Your task to perform on an android device: Open Youtube and go to "Your channel" Image 0: 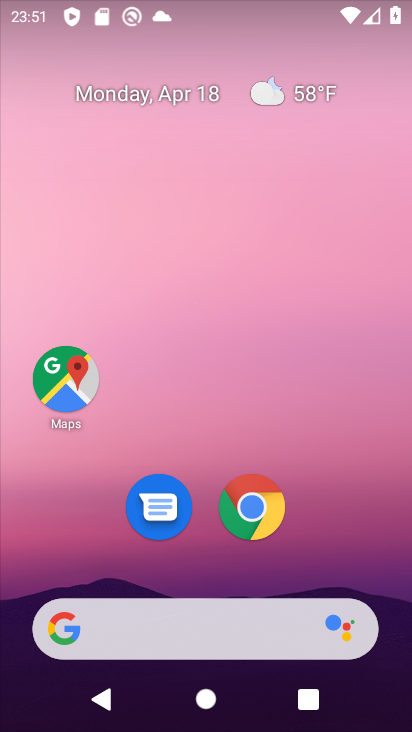
Step 0: drag from (206, 566) to (199, 101)
Your task to perform on an android device: Open Youtube and go to "Your channel" Image 1: 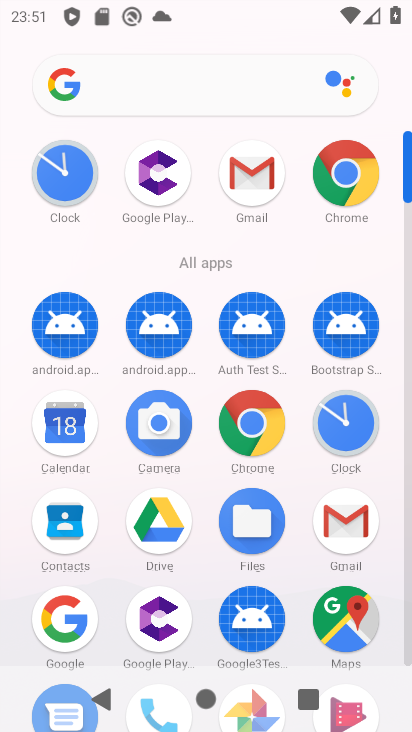
Step 1: drag from (206, 581) to (194, 150)
Your task to perform on an android device: Open Youtube and go to "Your channel" Image 2: 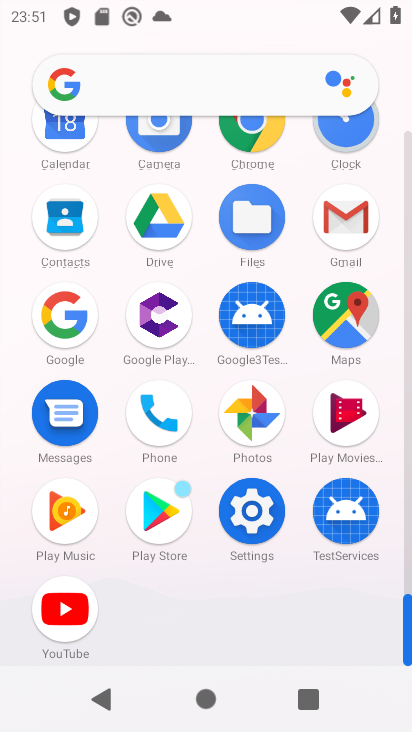
Step 2: click (61, 605)
Your task to perform on an android device: Open Youtube and go to "Your channel" Image 3: 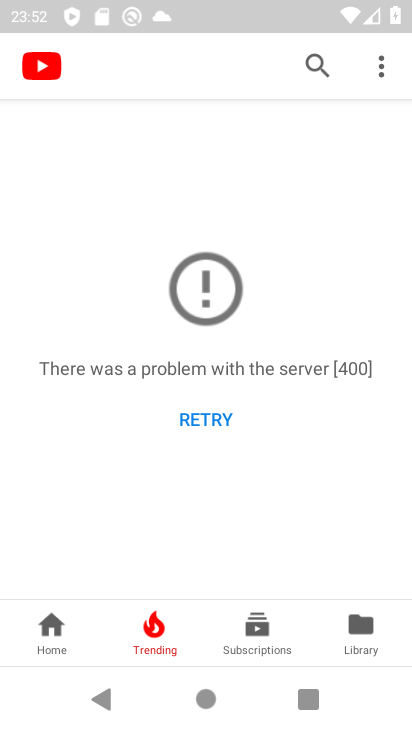
Step 3: click (359, 621)
Your task to perform on an android device: Open Youtube and go to "Your channel" Image 4: 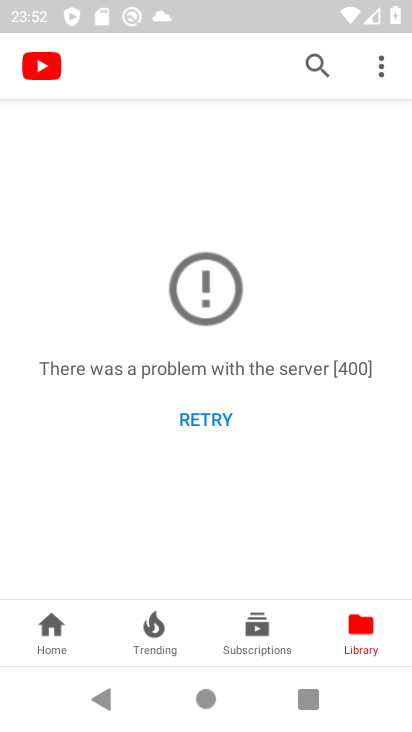
Step 4: click (382, 63)
Your task to perform on an android device: Open Youtube and go to "Your channel" Image 5: 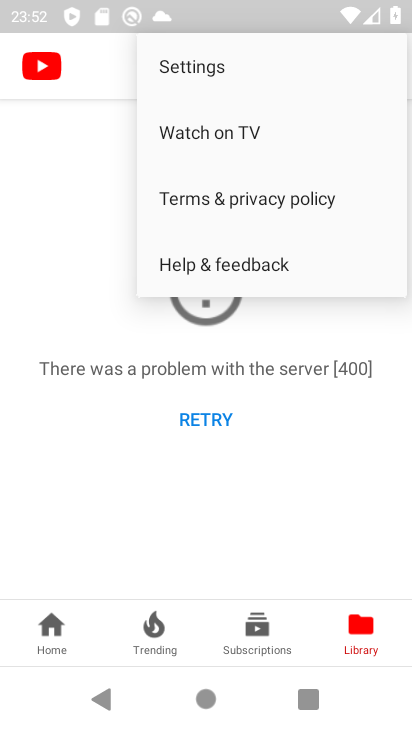
Step 5: click (236, 59)
Your task to perform on an android device: Open Youtube and go to "Your channel" Image 6: 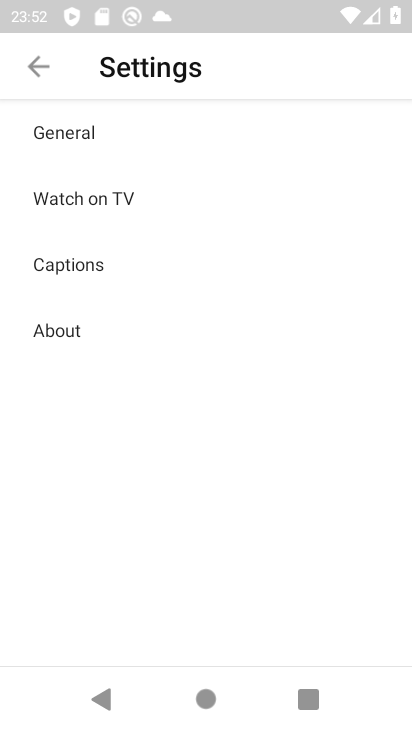
Step 6: task complete